Your task to perform on an android device: find photos in the google photos app Image 0: 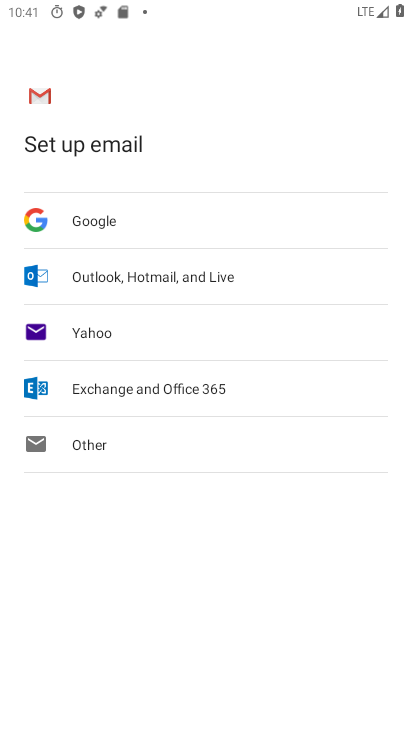
Step 0: press home button
Your task to perform on an android device: find photos in the google photos app Image 1: 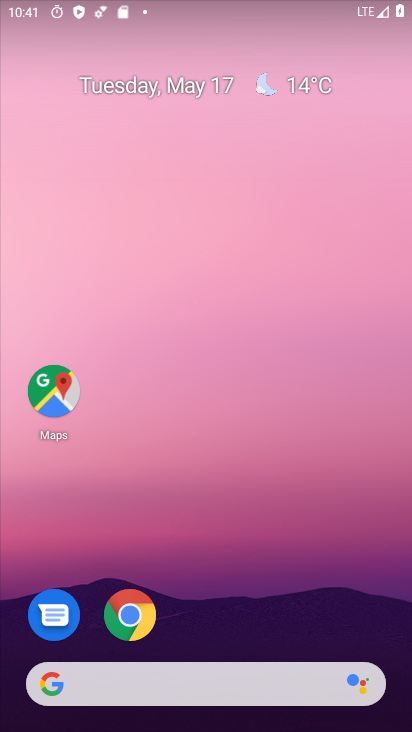
Step 1: drag from (205, 689) to (315, 209)
Your task to perform on an android device: find photos in the google photos app Image 2: 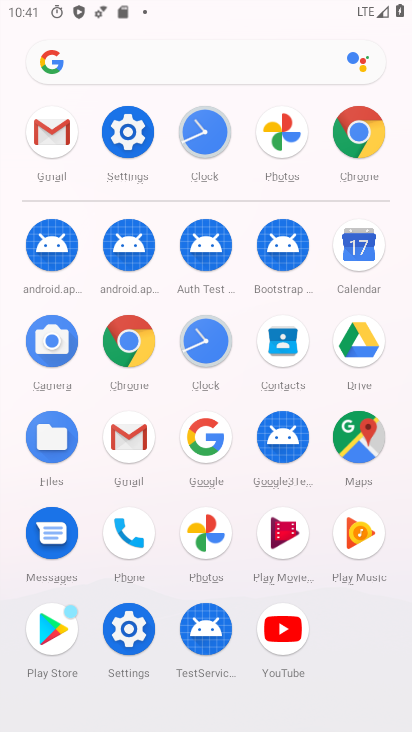
Step 2: click (212, 536)
Your task to perform on an android device: find photos in the google photos app Image 3: 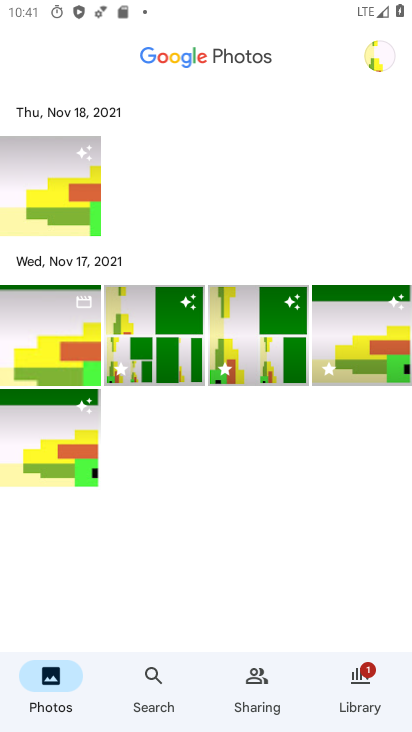
Step 3: task complete